Your task to perform on an android device: toggle improve location accuracy Image 0: 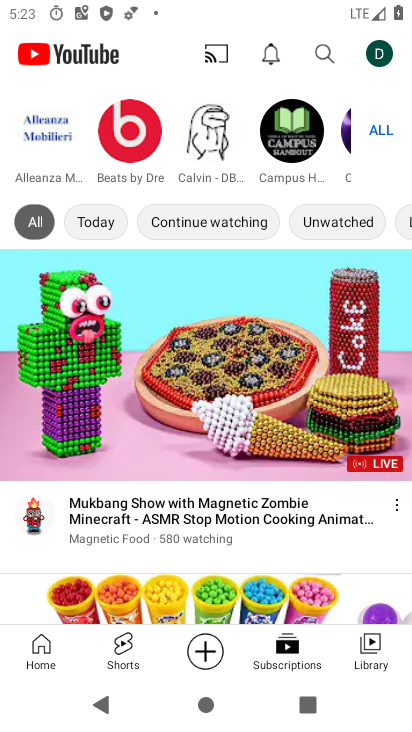
Step 0: press home button
Your task to perform on an android device: toggle improve location accuracy Image 1: 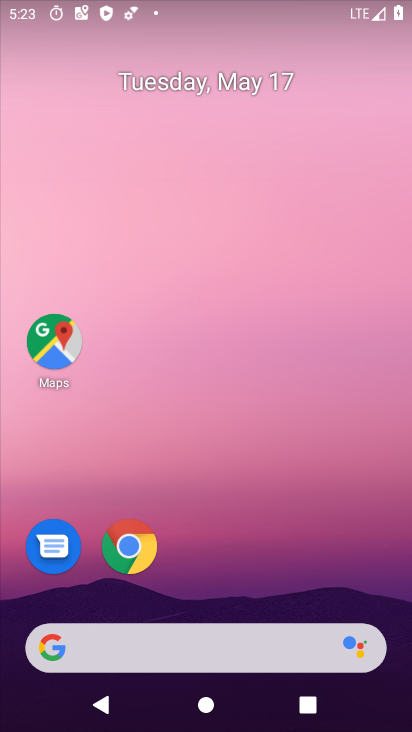
Step 1: drag from (225, 587) to (189, 73)
Your task to perform on an android device: toggle improve location accuracy Image 2: 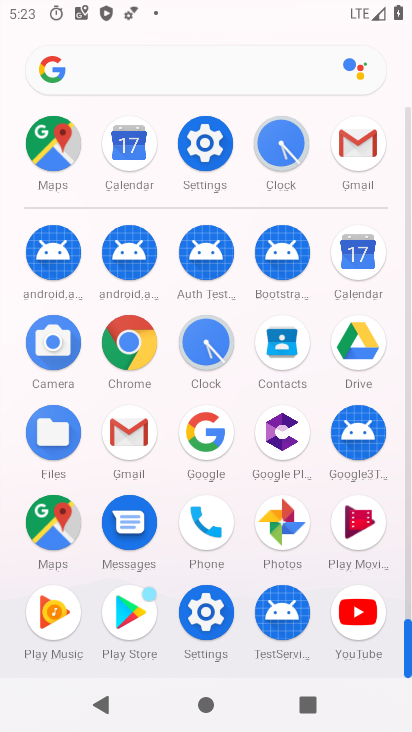
Step 2: click (201, 613)
Your task to perform on an android device: toggle improve location accuracy Image 3: 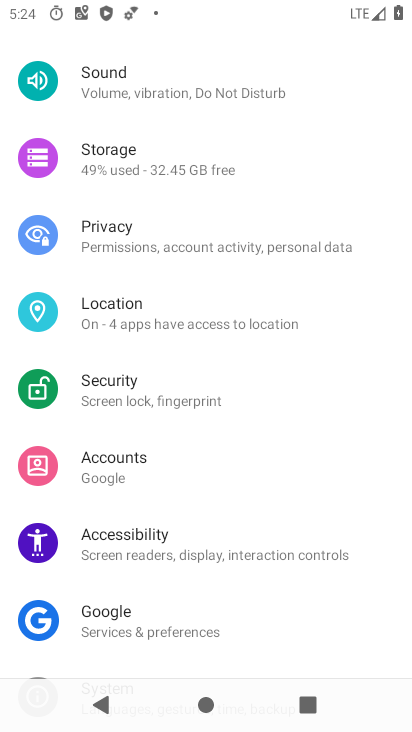
Step 3: click (90, 331)
Your task to perform on an android device: toggle improve location accuracy Image 4: 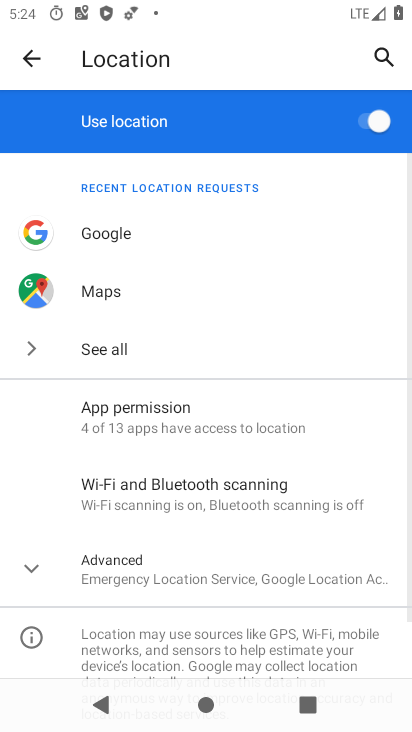
Step 4: click (120, 585)
Your task to perform on an android device: toggle improve location accuracy Image 5: 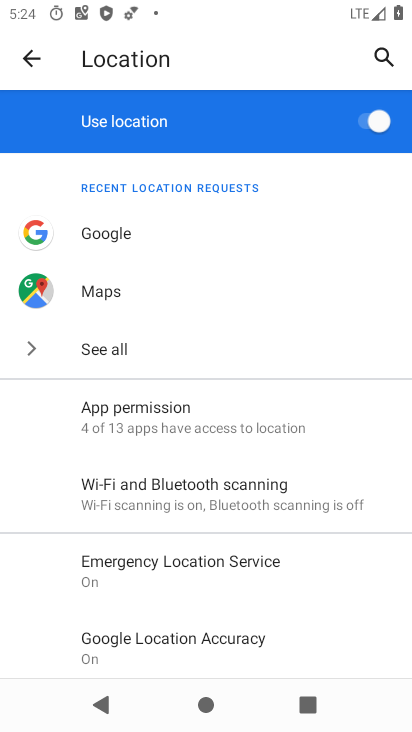
Step 5: click (167, 661)
Your task to perform on an android device: toggle improve location accuracy Image 6: 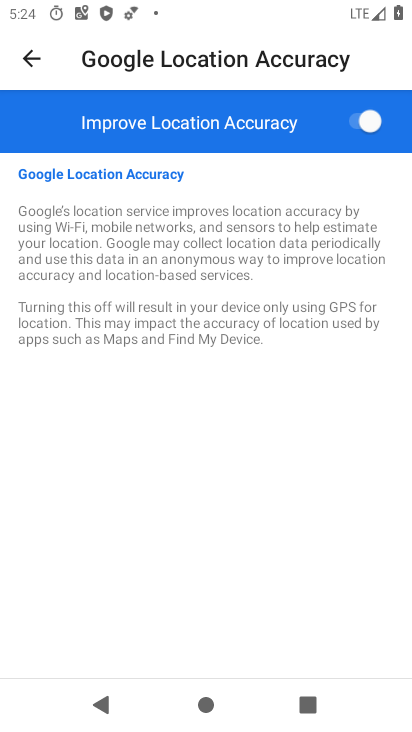
Step 6: click (351, 130)
Your task to perform on an android device: toggle improve location accuracy Image 7: 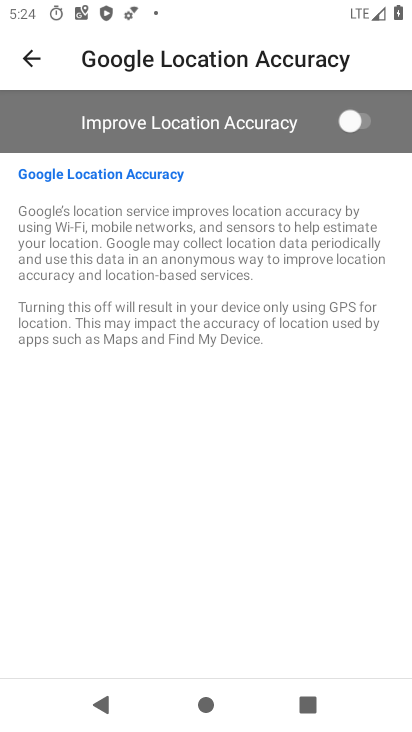
Step 7: task complete